Your task to perform on an android device: Open Youtube and go to the subscriptions tab Image 0: 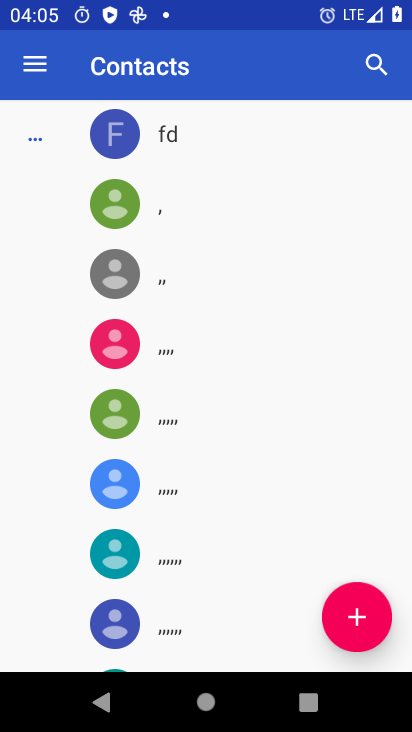
Step 0: drag from (230, 421) to (270, 184)
Your task to perform on an android device: Open Youtube and go to the subscriptions tab Image 1: 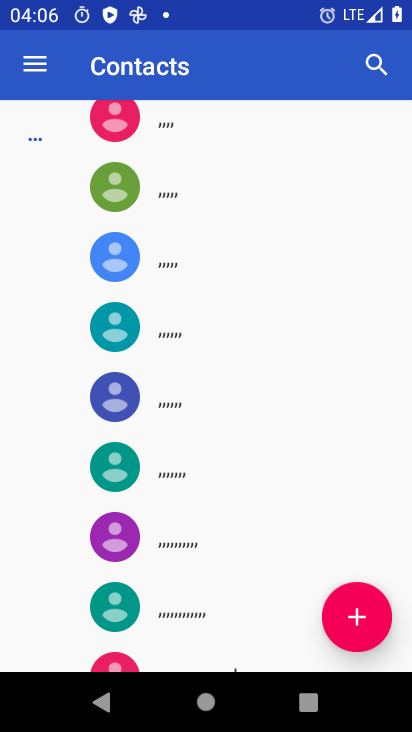
Step 1: drag from (200, 625) to (353, 157)
Your task to perform on an android device: Open Youtube and go to the subscriptions tab Image 2: 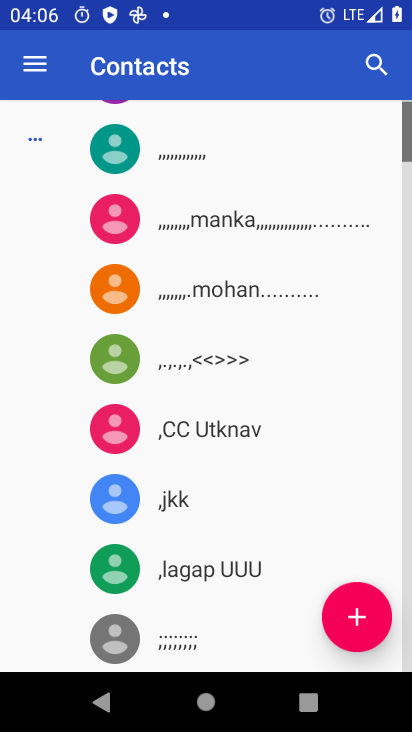
Step 2: press home button
Your task to perform on an android device: Open Youtube and go to the subscriptions tab Image 3: 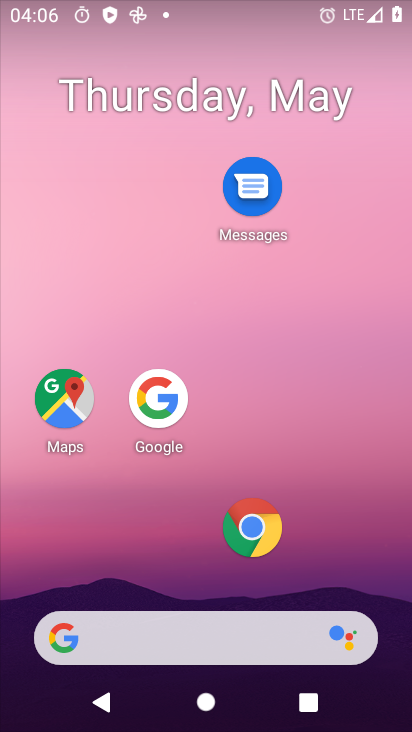
Step 3: drag from (172, 551) to (245, 233)
Your task to perform on an android device: Open Youtube and go to the subscriptions tab Image 4: 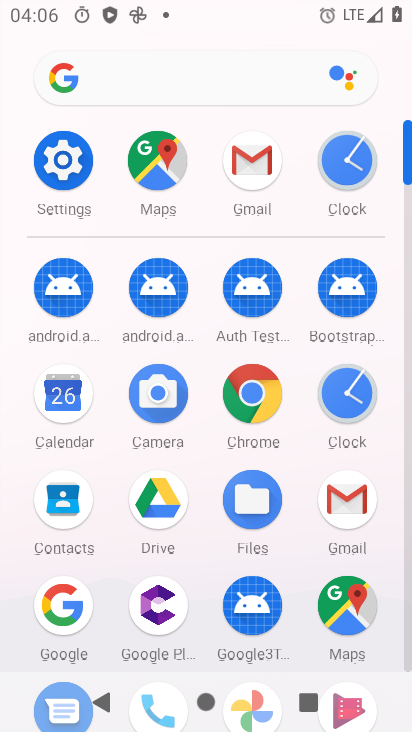
Step 4: drag from (174, 564) to (260, 42)
Your task to perform on an android device: Open Youtube and go to the subscriptions tab Image 5: 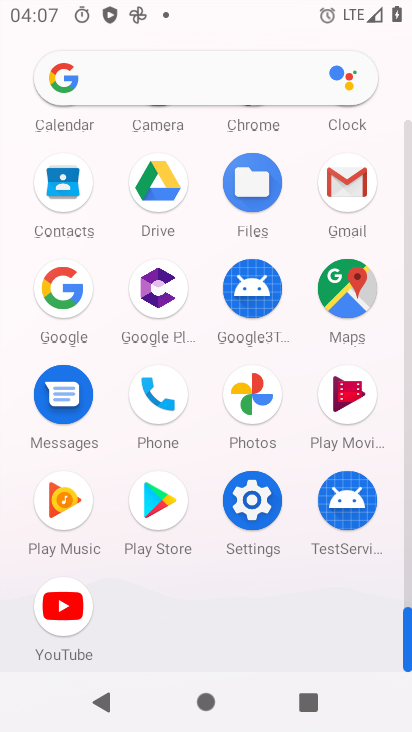
Step 5: click (58, 597)
Your task to perform on an android device: Open Youtube and go to the subscriptions tab Image 6: 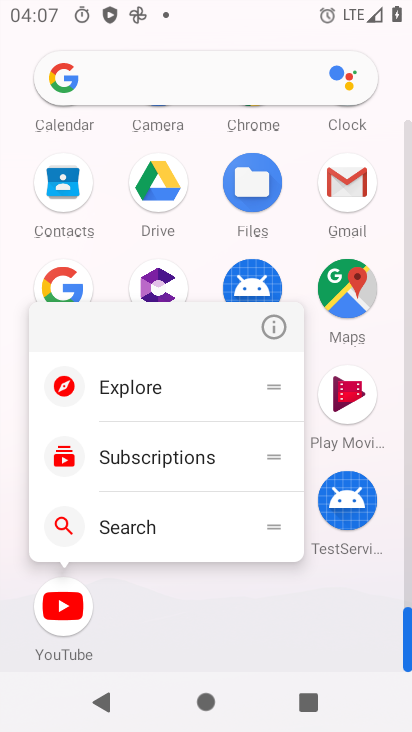
Step 6: click (117, 444)
Your task to perform on an android device: Open Youtube and go to the subscriptions tab Image 7: 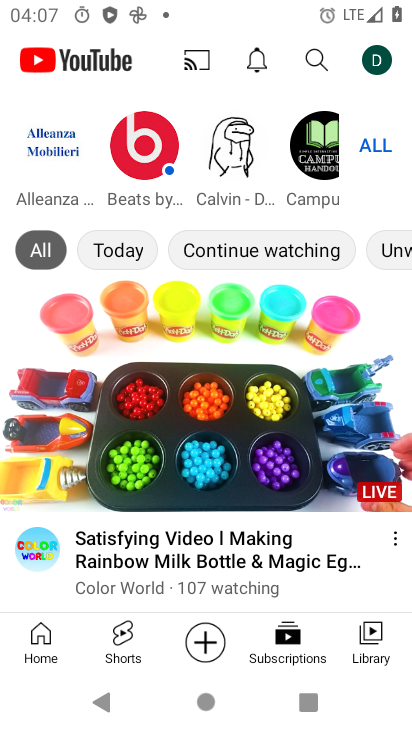
Step 7: drag from (252, 559) to (277, 437)
Your task to perform on an android device: Open Youtube and go to the subscriptions tab Image 8: 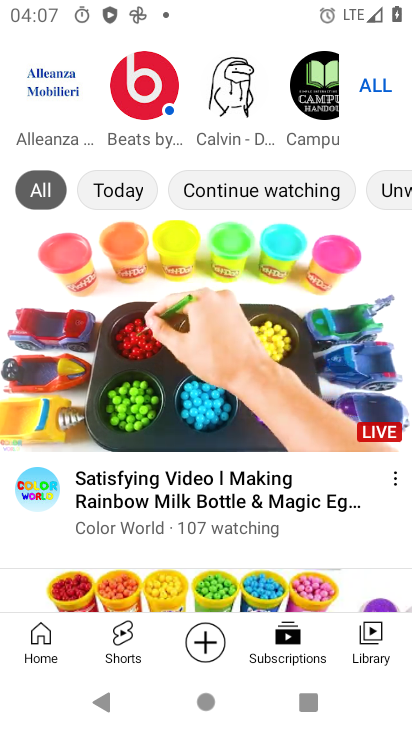
Step 8: click (295, 625)
Your task to perform on an android device: Open Youtube and go to the subscriptions tab Image 9: 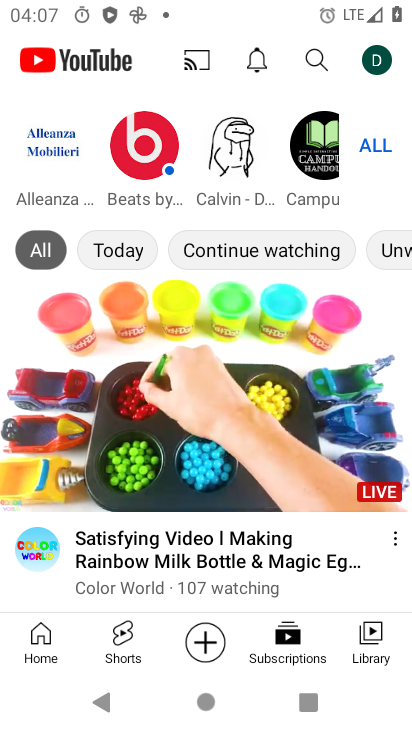
Step 9: task complete